Your task to perform on an android device: Go to sound settings Image 0: 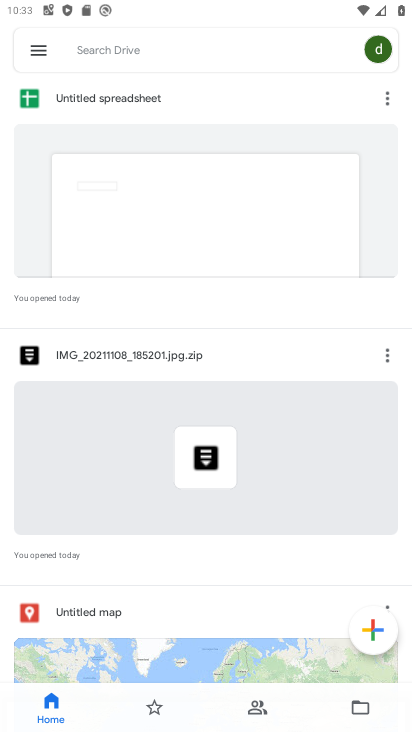
Step 0: press home button
Your task to perform on an android device: Go to sound settings Image 1: 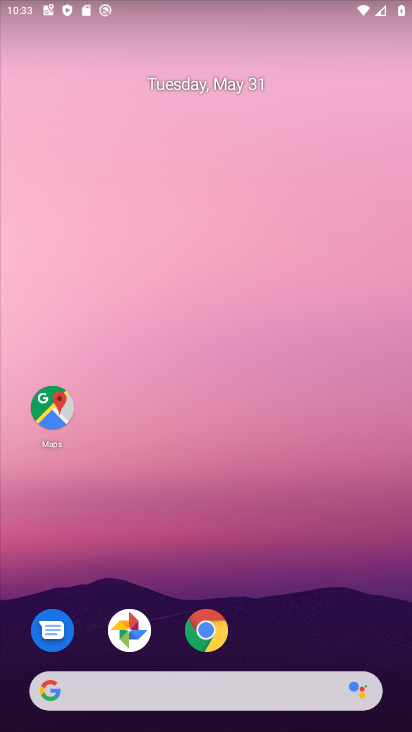
Step 1: drag from (270, 623) to (260, 206)
Your task to perform on an android device: Go to sound settings Image 2: 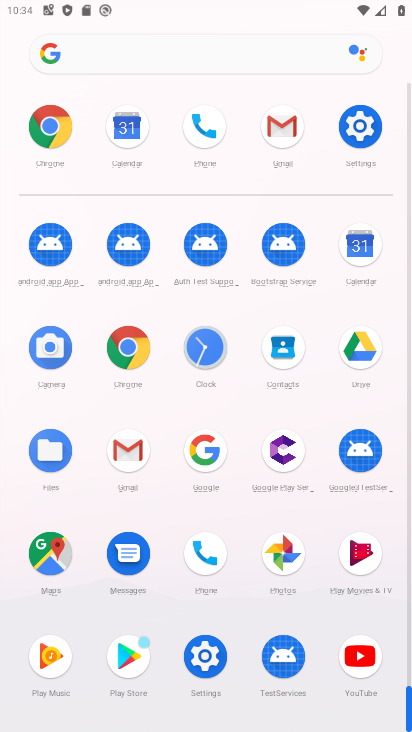
Step 2: click (359, 132)
Your task to perform on an android device: Go to sound settings Image 3: 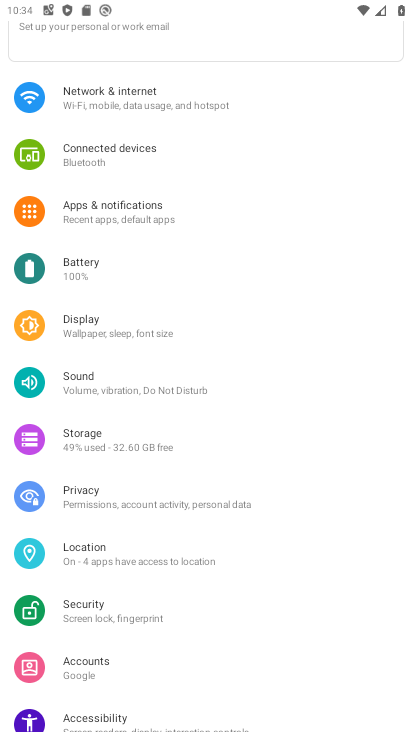
Step 3: click (122, 374)
Your task to perform on an android device: Go to sound settings Image 4: 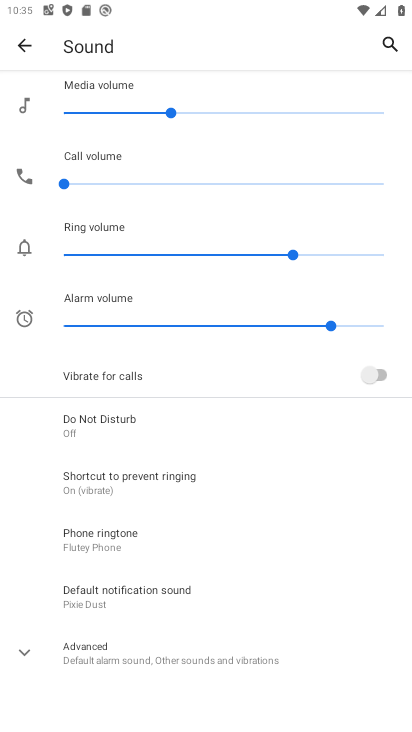
Step 4: task complete